Your task to perform on an android device: toggle notifications settings in the gmail app Image 0: 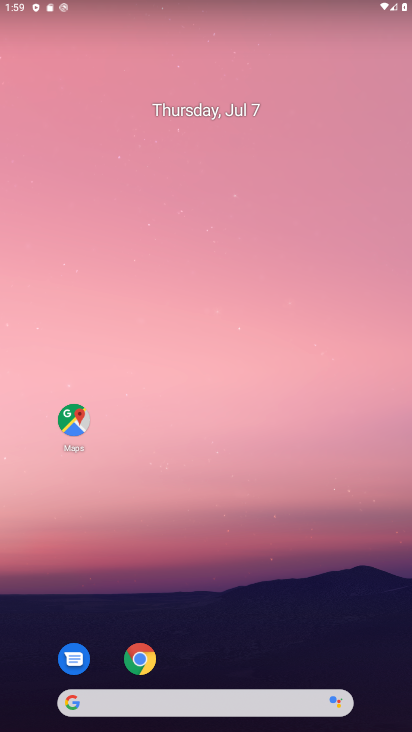
Step 0: drag from (211, 602) to (103, 103)
Your task to perform on an android device: toggle notifications settings in the gmail app Image 1: 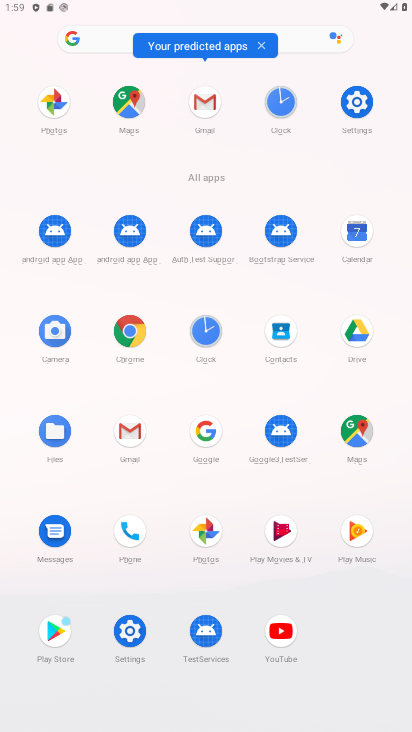
Step 1: click (209, 105)
Your task to perform on an android device: toggle notifications settings in the gmail app Image 2: 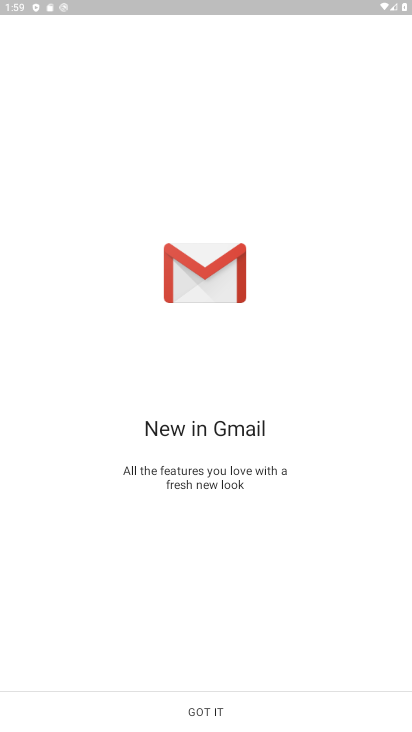
Step 2: click (200, 699)
Your task to perform on an android device: toggle notifications settings in the gmail app Image 3: 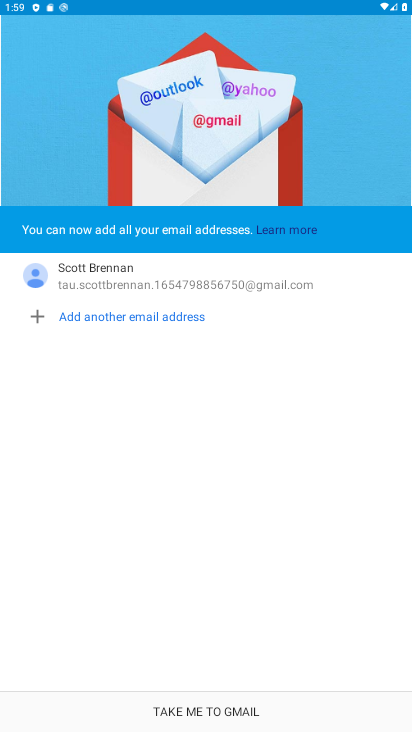
Step 3: click (206, 711)
Your task to perform on an android device: toggle notifications settings in the gmail app Image 4: 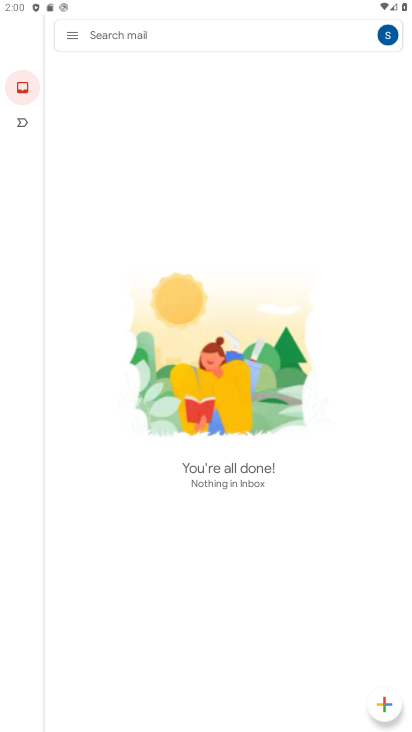
Step 4: click (69, 34)
Your task to perform on an android device: toggle notifications settings in the gmail app Image 5: 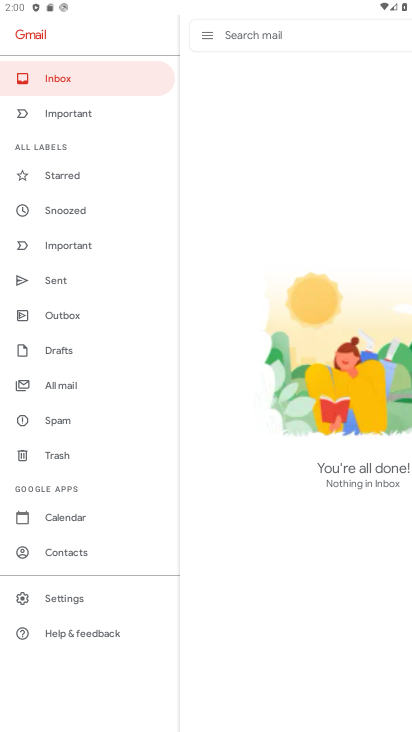
Step 5: click (65, 589)
Your task to perform on an android device: toggle notifications settings in the gmail app Image 6: 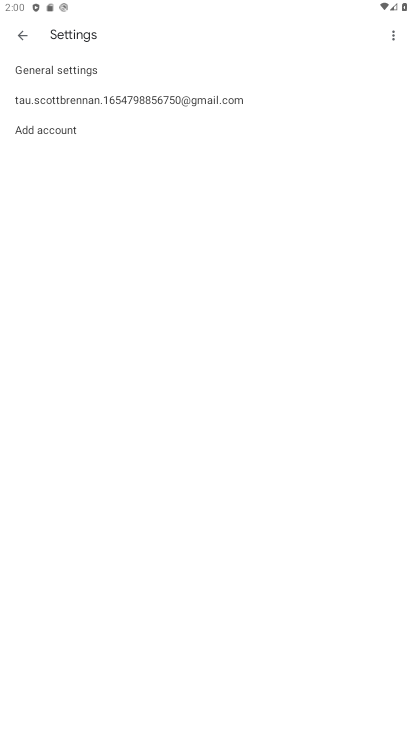
Step 6: click (46, 65)
Your task to perform on an android device: toggle notifications settings in the gmail app Image 7: 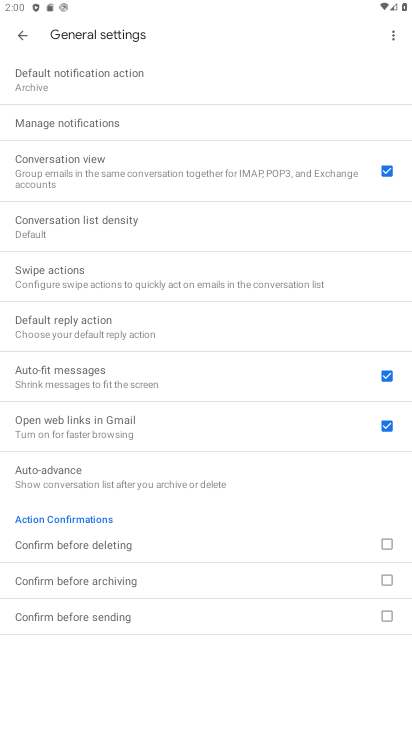
Step 7: click (110, 129)
Your task to perform on an android device: toggle notifications settings in the gmail app Image 8: 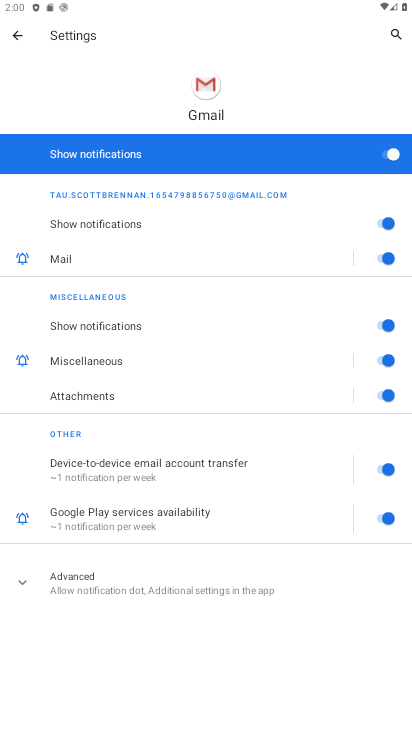
Step 8: click (388, 157)
Your task to perform on an android device: toggle notifications settings in the gmail app Image 9: 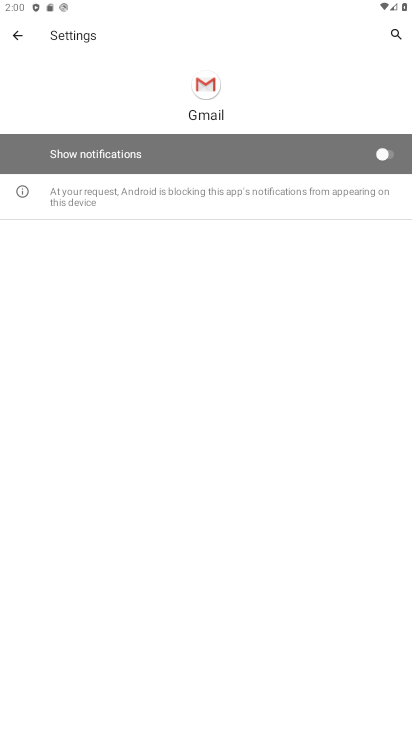
Step 9: task complete